Your task to perform on an android device: refresh tabs in the chrome app Image 0: 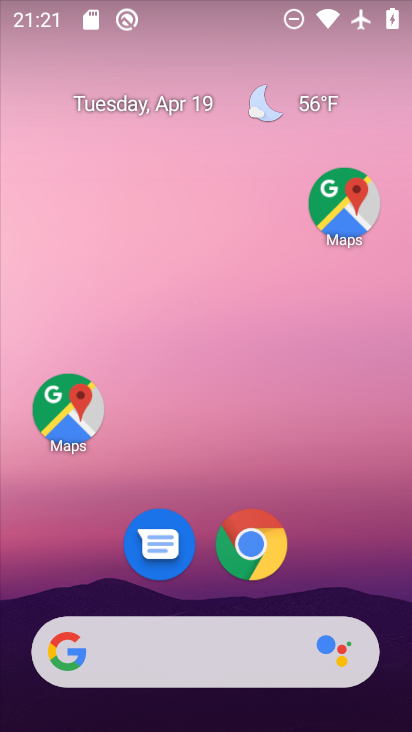
Step 0: drag from (235, 621) to (364, 154)
Your task to perform on an android device: refresh tabs in the chrome app Image 1: 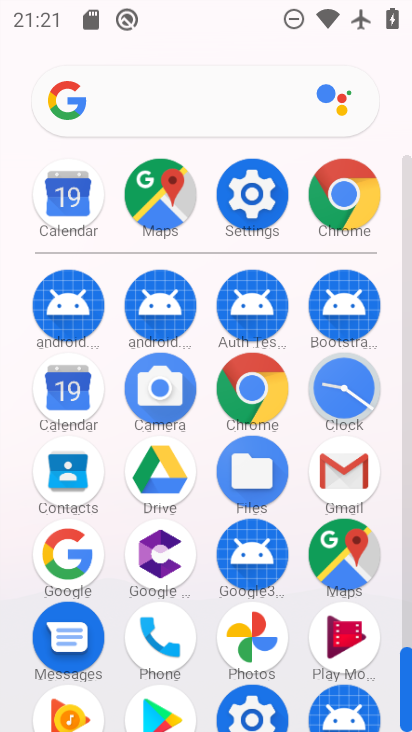
Step 1: click (354, 194)
Your task to perform on an android device: refresh tabs in the chrome app Image 2: 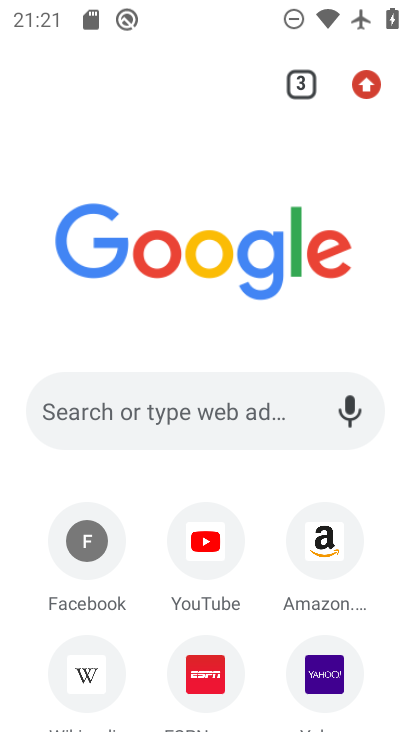
Step 2: click (377, 94)
Your task to perform on an android device: refresh tabs in the chrome app Image 3: 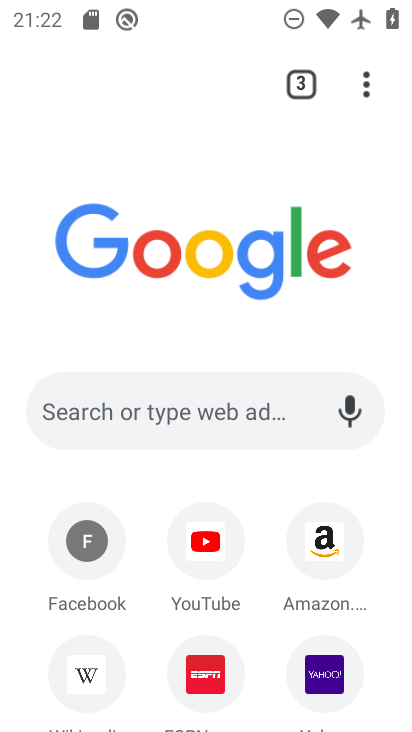
Step 3: click (368, 93)
Your task to perform on an android device: refresh tabs in the chrome app Image 4: 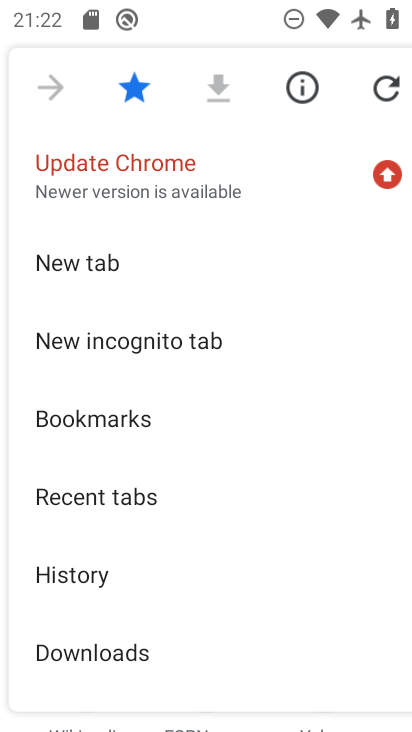
Step 4: click (374, 93)
Your task to perform on an android device: refresh tabs in the chrome app Image 5: 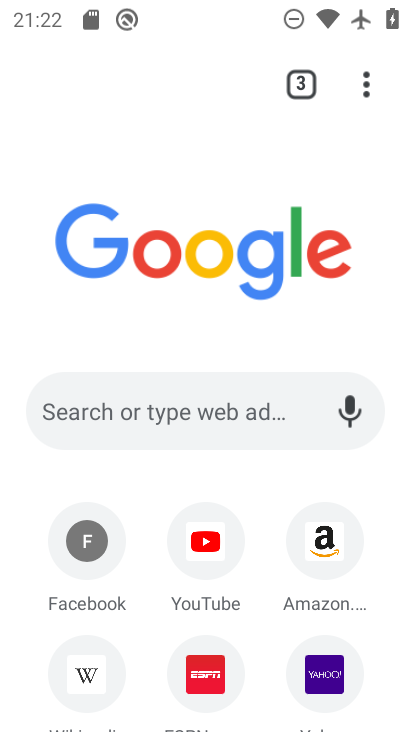
Step 5: task complete